Your task to perform on an android device: find which apps use the phone's location Image 0: 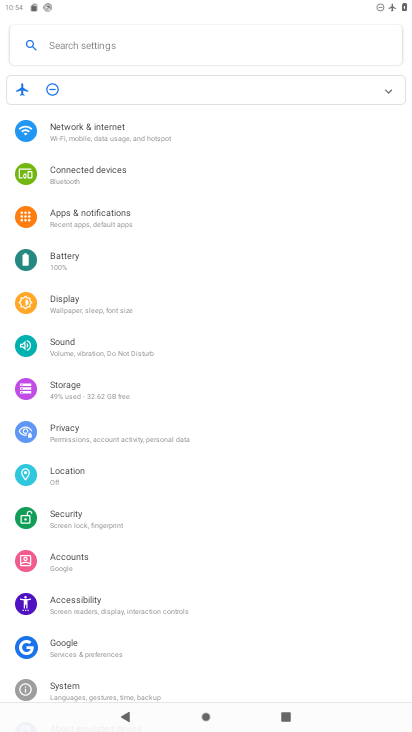
Step 0: click (75, 477)
Your task to perform on an android device: find which apps use the phone's location Image 1: 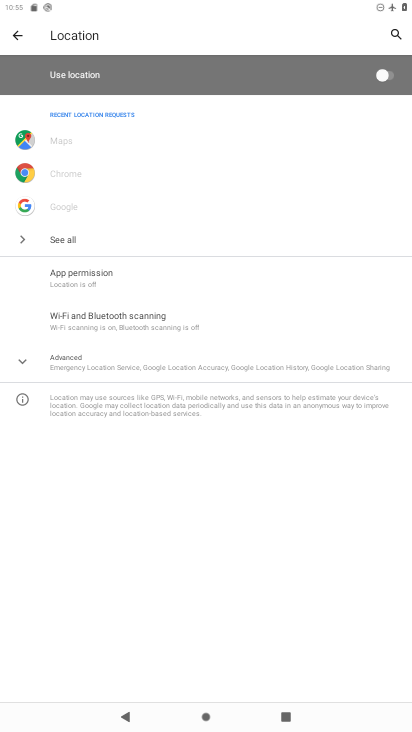
Step 1: click (89, 275)
Your task to perform on an android device: find which apps use the phone's location Image 2: 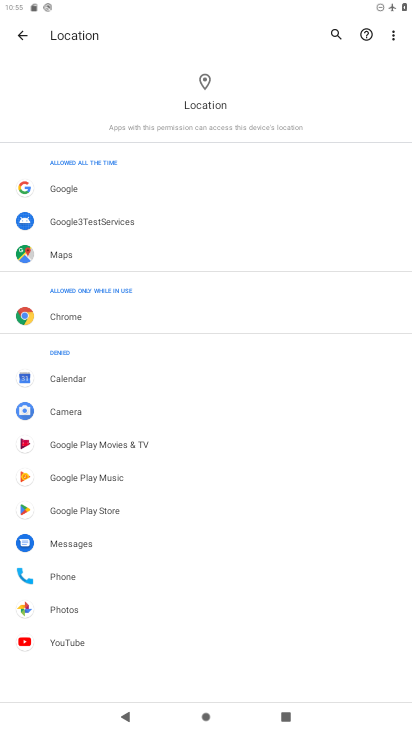
Step 2: task complete